Your task to perform on an android device: Open calendar and show me the second week of next month Image 0: 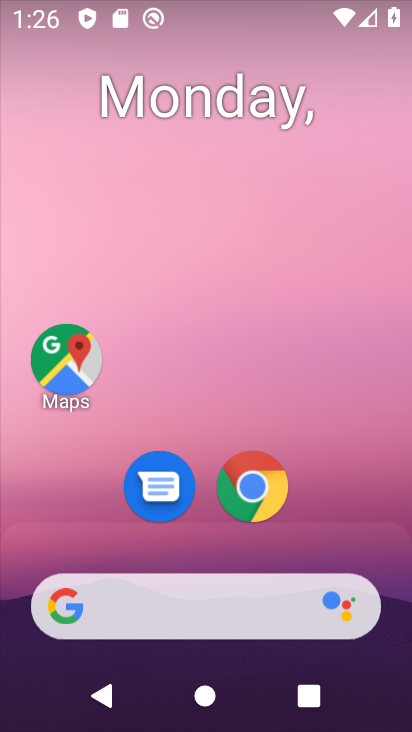
Step 0: drag from (297, 515) to (352, 138)
Your task to perform on an android device: Open calendar and show me the second week of next month Image 1: 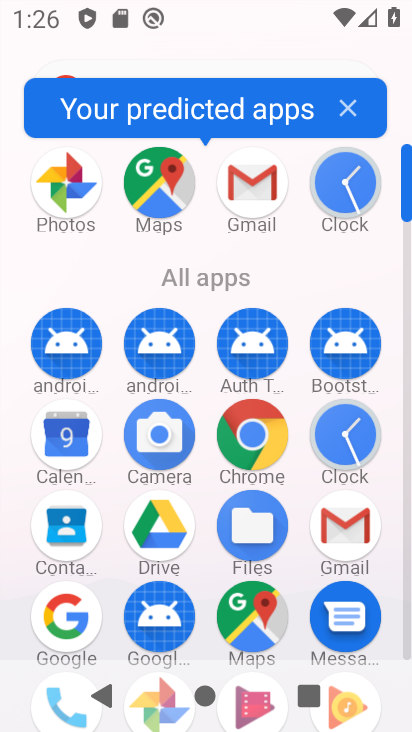
Step 1: click (82, 454)
Your task to perform on an android device: Open calendar and show me the second week of next month Image 2: 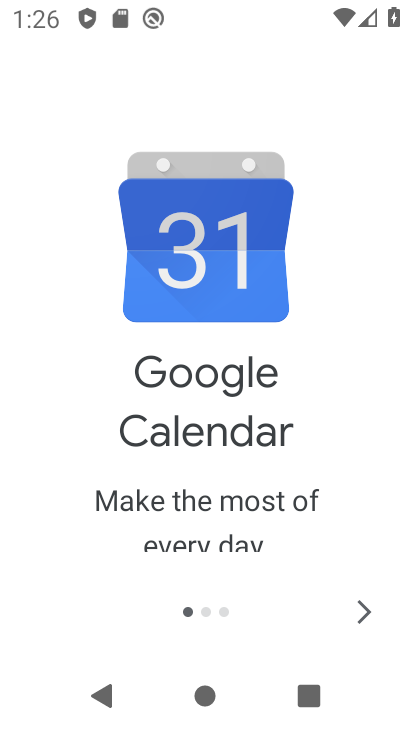
Step 2: click (355, 612)
Your task to perform on an android device: Open calendar and show me the second week of next month Image 3: 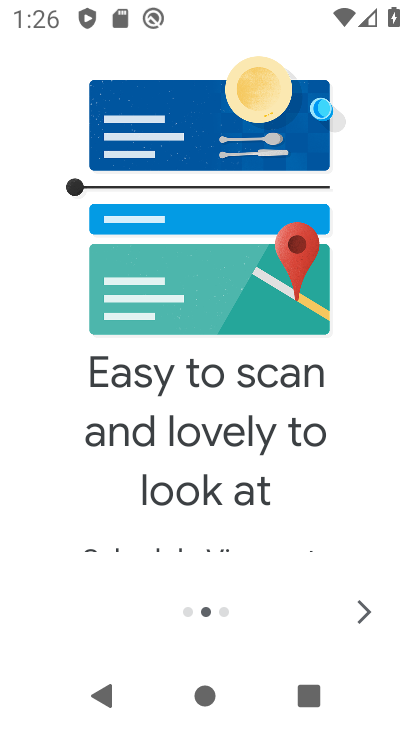
Step 3: click (355, 612)
Your task to perform on an android device: Open calendar and show me the second week of next month Image 4: 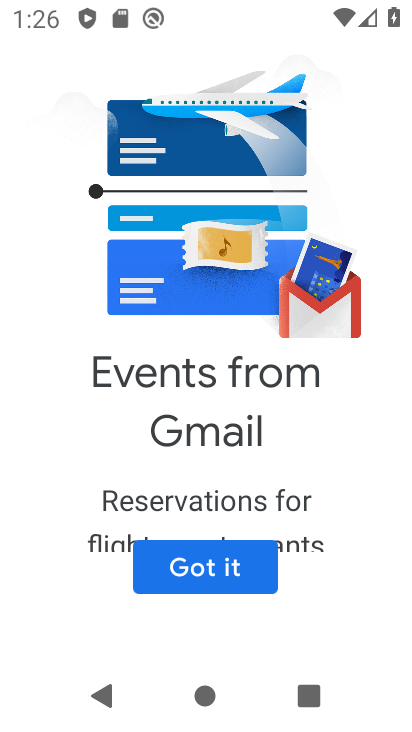
Step 4: click (225, 572)
Your task to perform on an android device: Open calendar and show me the second week of next month Image 5: 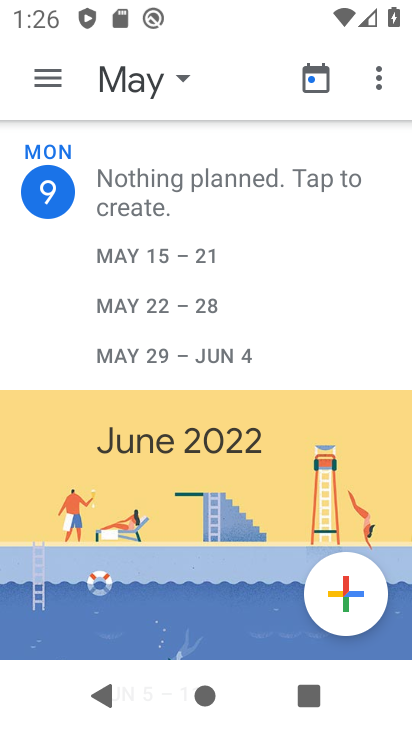
Step 5: click (148, 71)
Your task to perform on an android device: Open calendar and show me the second week of next month Image 6: 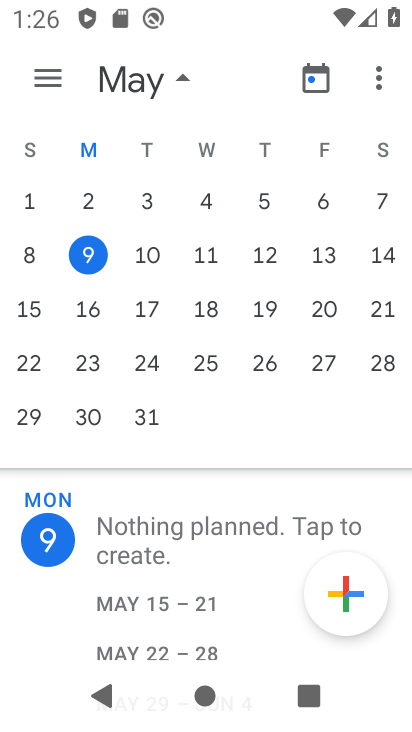
Step 6: drag from (387, 319) to (3, 335)
Your task to perform on an android device: Open calendar and show me the second week of next month Image 7: 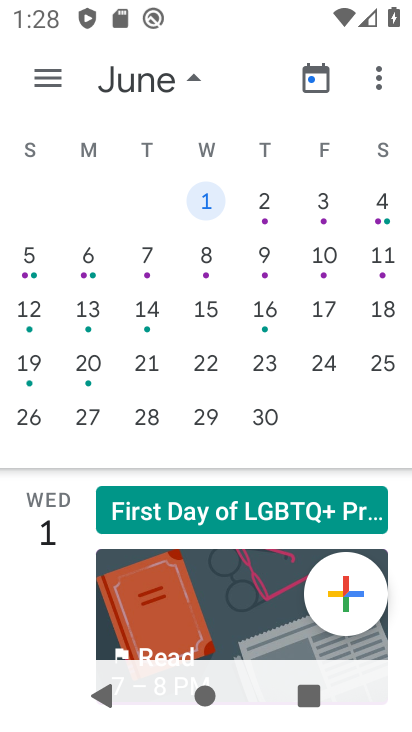
Step 7: click (21, 275)
Your task to perform on an android device: Open calendar and show me the second week of next month Image 8: 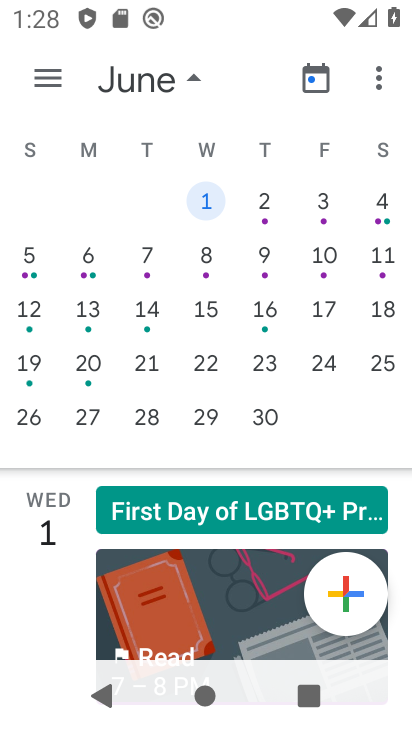
Step 8: click (93, 279)
Your task to perform on an android device: Open calendar and show me the second week of next month Image 9: 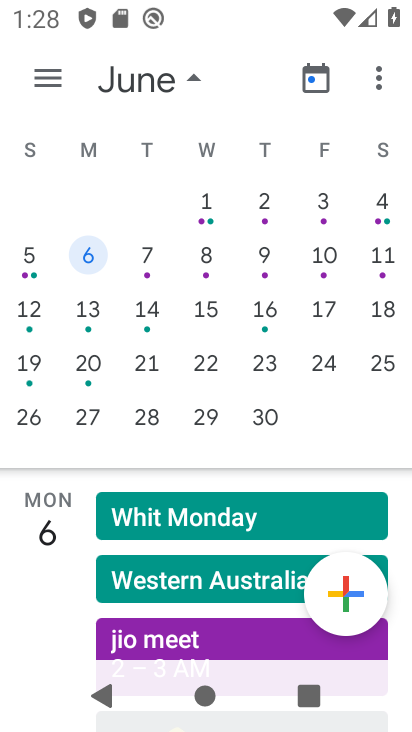
Step 9: click (151, 274)
Your task to perform on an android device: Open calendar and show me the second week of next month Image 10: 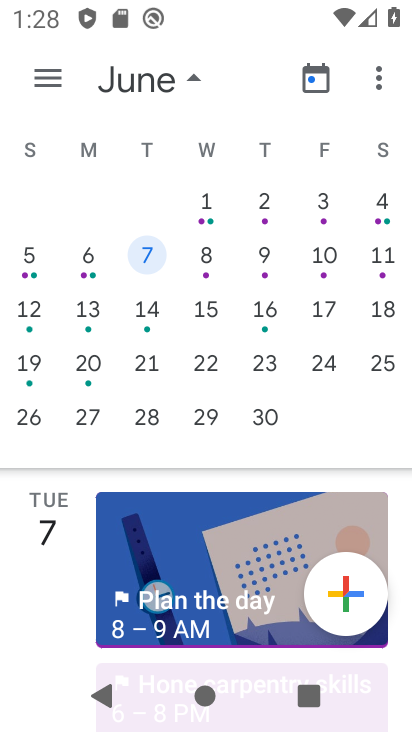
Step 10: click (211, 274)
Your task to perform on an android device: Open calendar and show me the second week of next month Image 11: 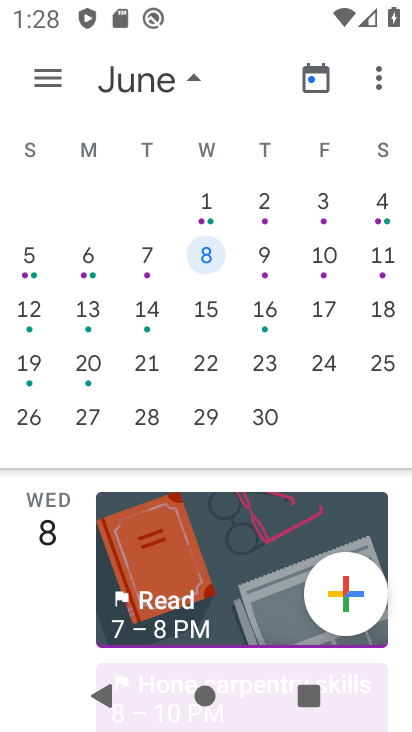
Step 11: click (271, 269)
Your task to perform on an android device: Open calendar and show me the second week of next month Image 12: 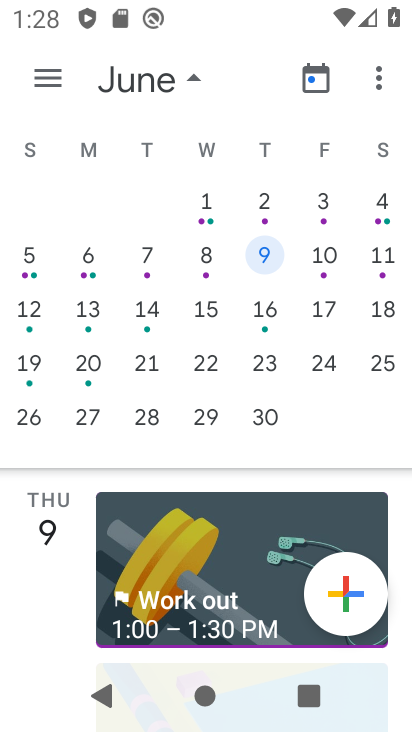
Step 12: click (326, 266)
Your task to perform on an android device: Open calendar and show me the second week of next month Image 13: 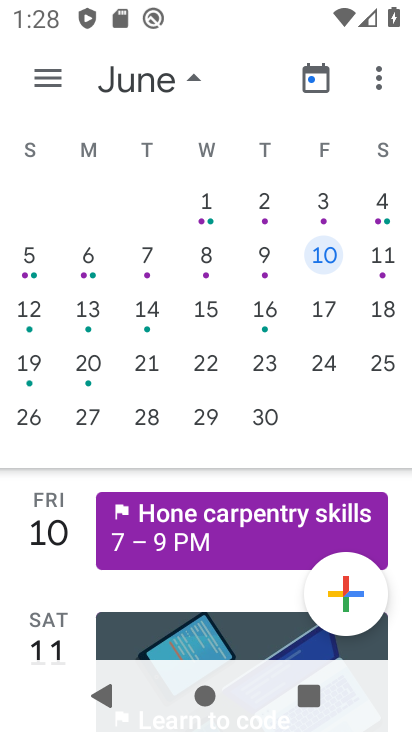
Step 13: click (387, 264)
Your task to perform on an android device: Open calendar and show me the second week of next month Image 14: 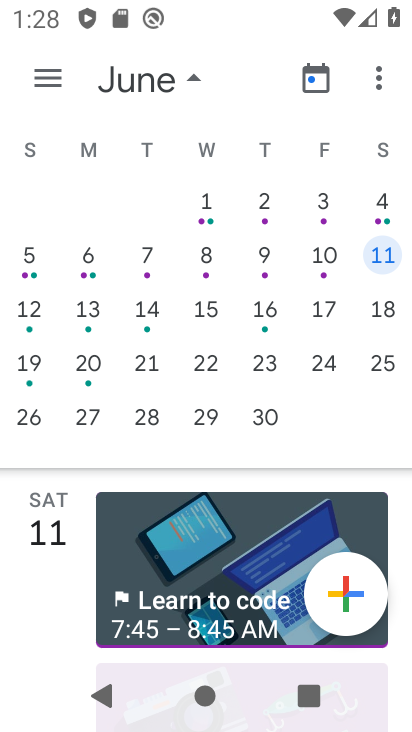
Step 14: task complete